Your task to perform on an android device: Do I have any events tomorrow? Image 0: 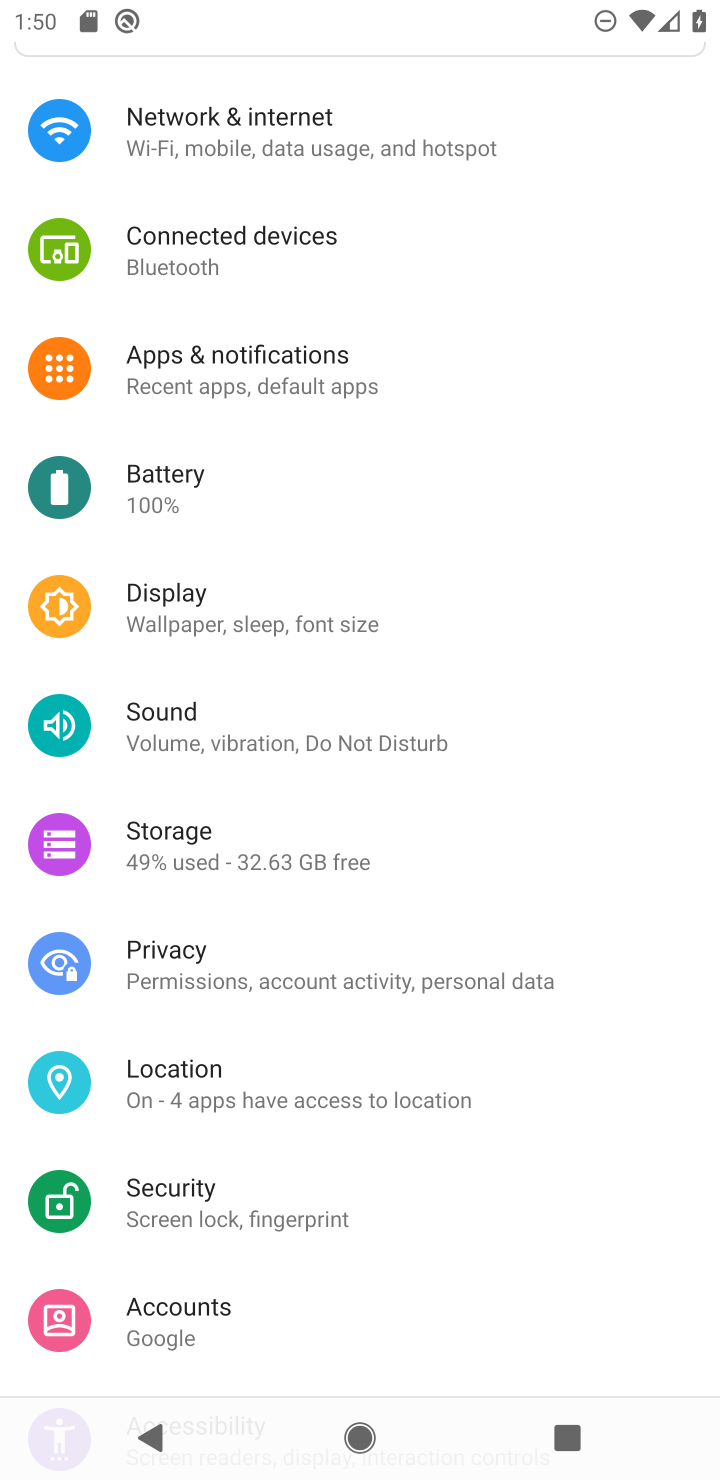
Step 0: press home button
Your task to perform on an android device: Do I have any events tomorrow? Image 1: 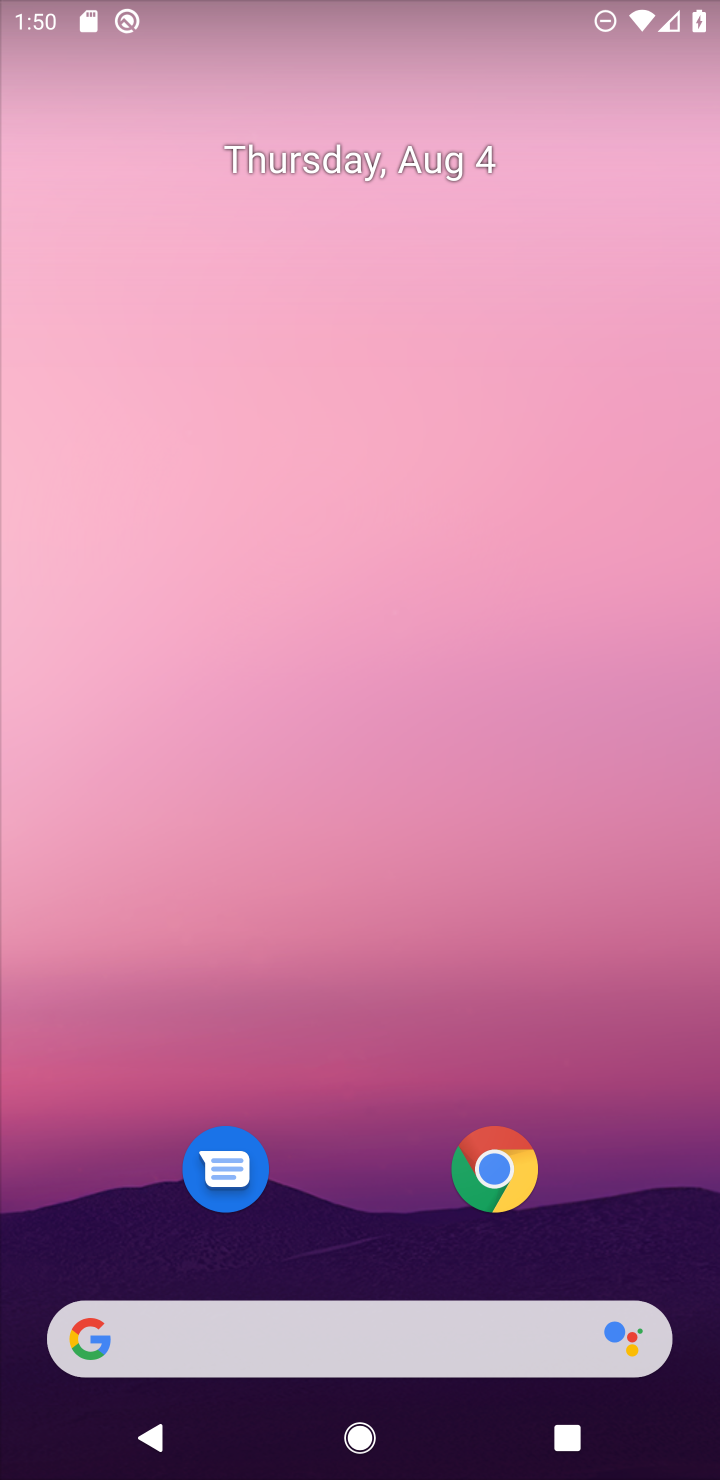
Step 1: drag from (373, 1187) to (446, 16)
Your task to perform on an android device: Do I have any events tomorrow? Image 2: 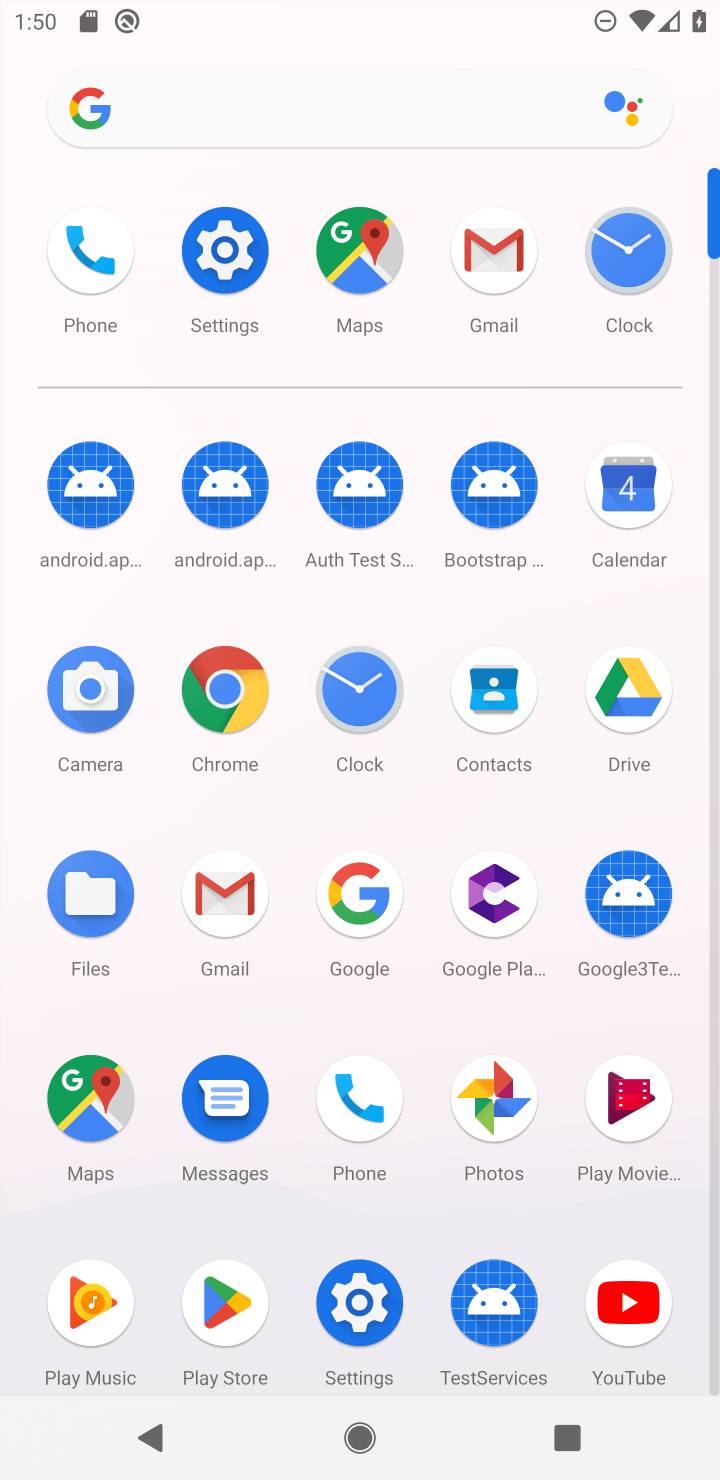
Step 2: click (623, 501)
Your task to perform on an android device: Do I have any events tomorrow? Image 3: 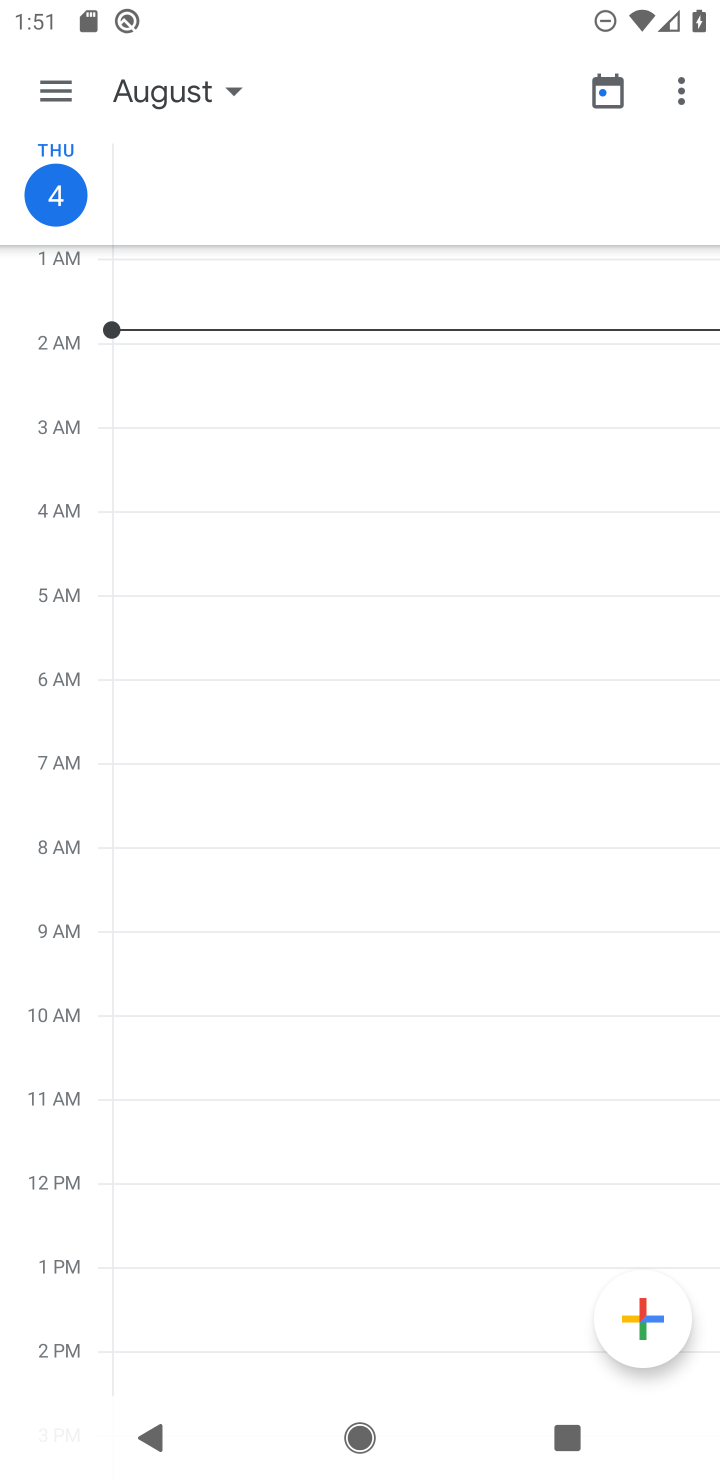
Step 3: task complete